Your task to perform on an android device: Do I have any events tomorrow? Image 0: 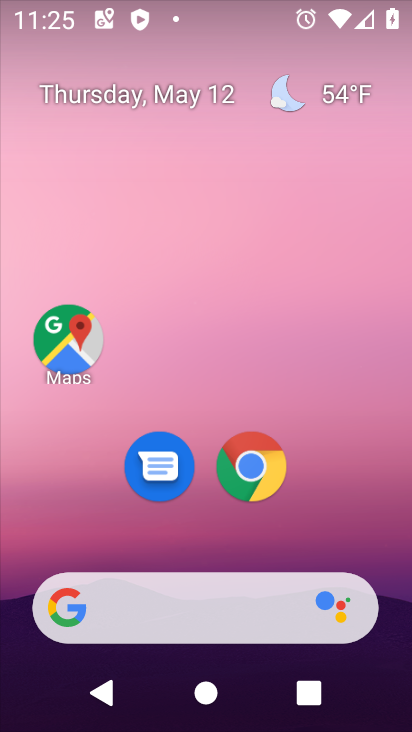
Step 0: drag from (381, 504) to (343, 193)
Your task to perform on an android device: Do I have any events tomorrow? Image 1: 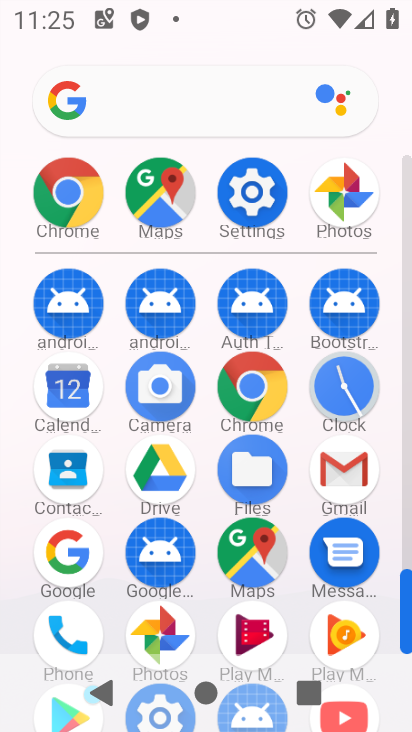
Step 1: click (70, 378)
Your task to perform on an android device: Do I have any events tomorrow? Image 2: 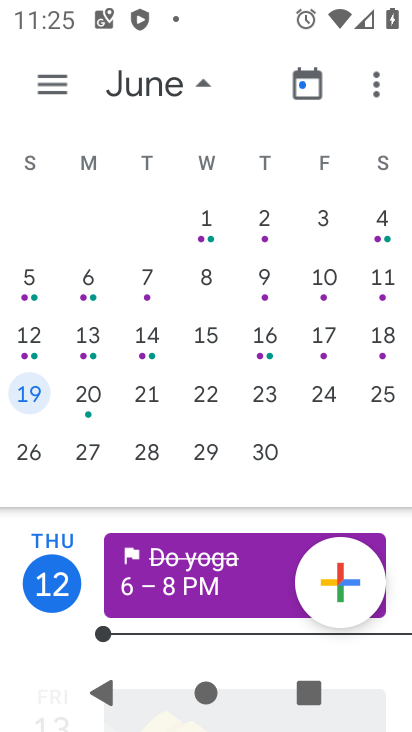
Step 2: drag from (111, 213) to (396, 210)
Your task to perform on an android device: Do I have any events tomorrow? Image 3: 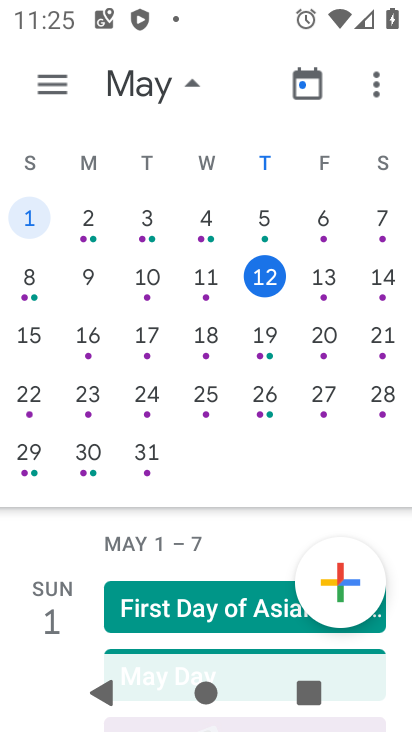
Step 3: click (322, 278)
Your task to perform on an android device: Do I have any events tomorrow? Image 4: 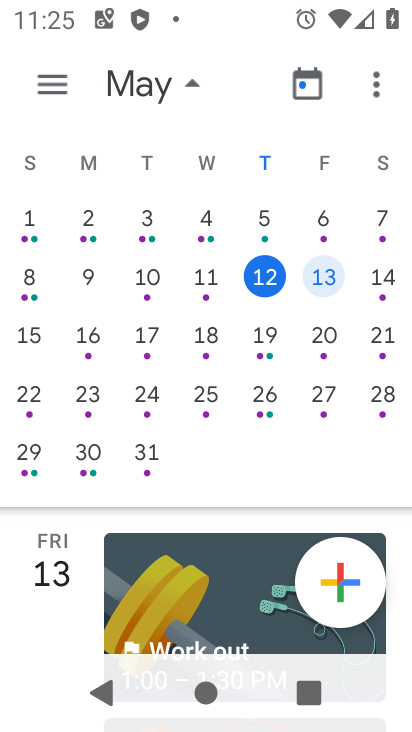
Step 4: task complete